Your task to perform on an android device: Search for Mexican restaurants on Maps Image 0: 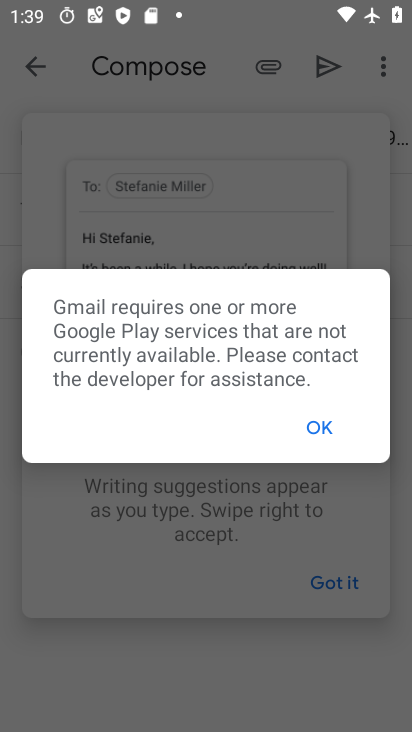
Step 0: press home button
Your task to perform on an android device: Search for Mexican restaurants on Maps Image 1: 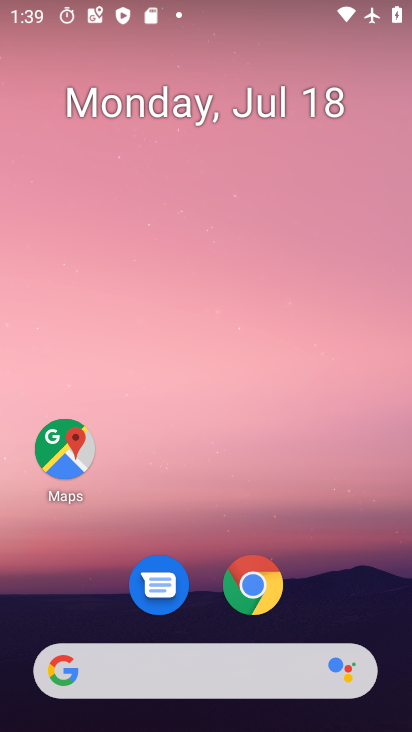
Step 1: click (64, 472)
Your task to perform on an android device: Search for Mexican restaurants on Maps Image 2: 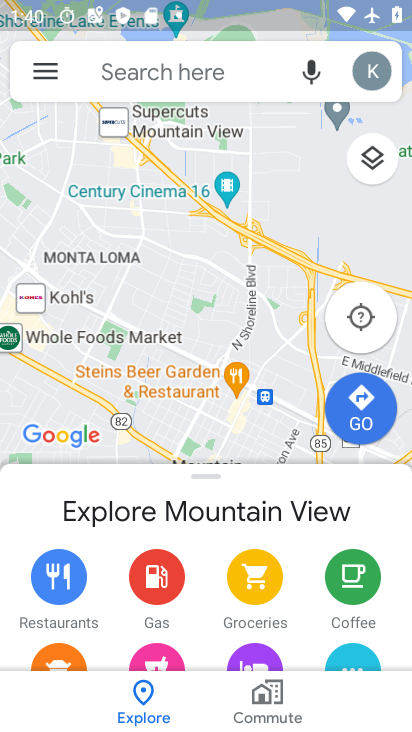
Step 2: click (138, 65)
Your task to perform on an android device: Search for Mexican restaurants on Maps Image 3: 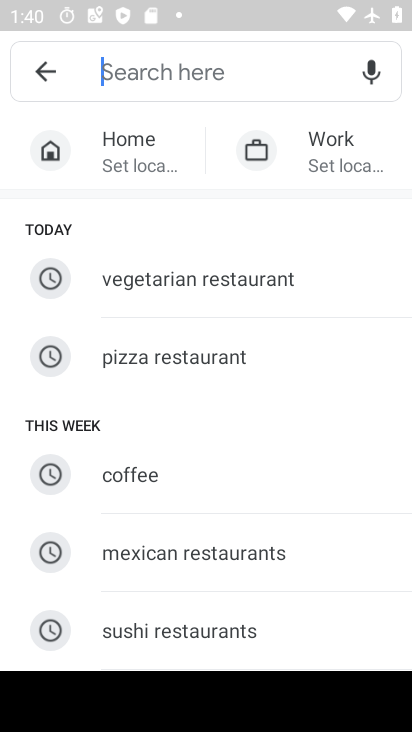
Step 3: drag from (260, 520) to (302, 302)
Your task to perform on an android device: Search for Mexican restaurants on Maps Image 4: 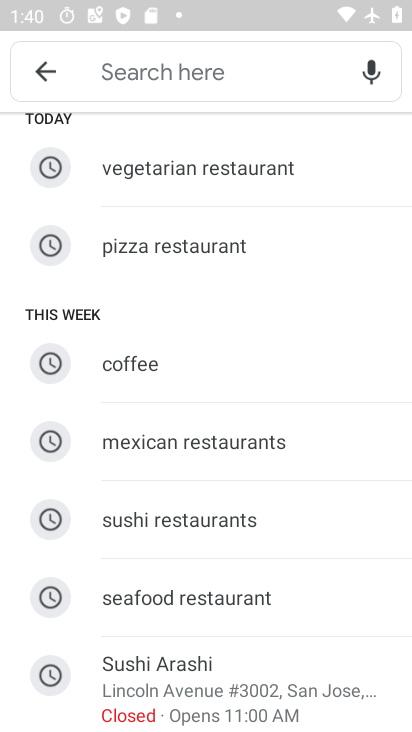
Step 4: click (200, 443)
Your task to perform on an android device: Search for Mexican restaurants on Maps Image 5: 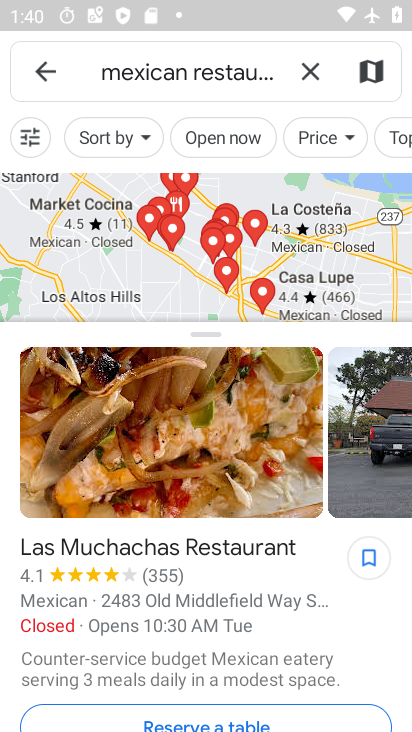
Step 5: task complete